Your task to perform on an android device: turn off location history Image 0: 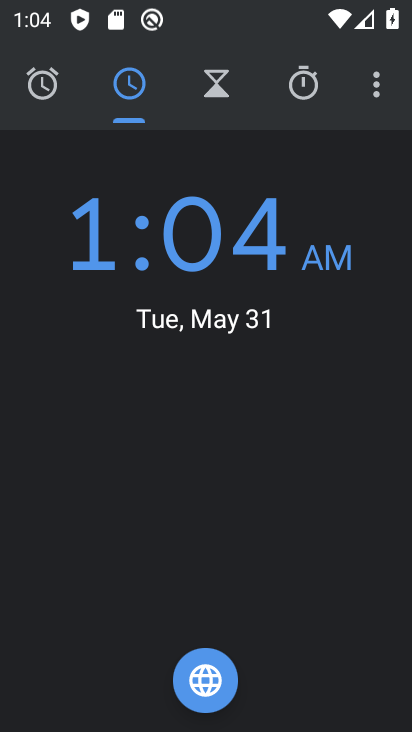
Step 0: press home button
Your task to perform on an android device: turn off location history Image 1: 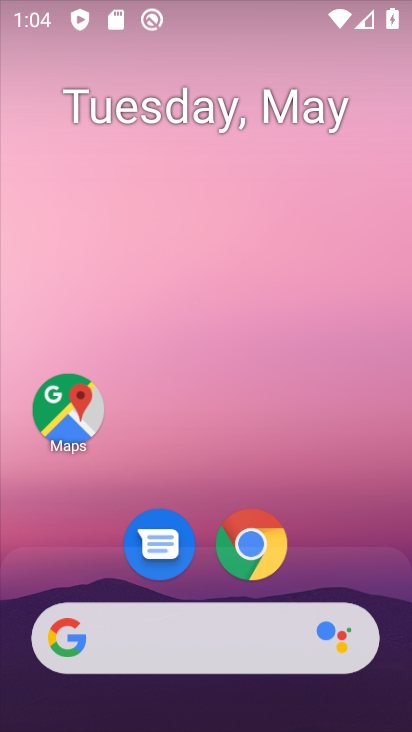
Step 1: drag from (131, 726) to (181, 10)
Your task to perform on an android device: turn off location history Image 2: 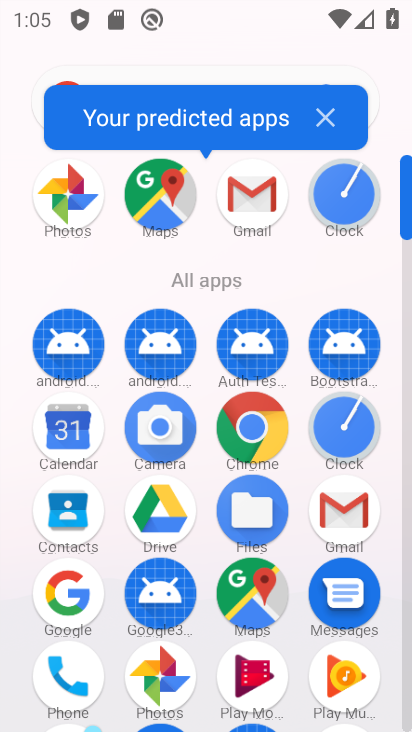
Step 2: drag from (110, 568) to (121, 194)
Your task to perform on an android device: turn off location history Image 3: 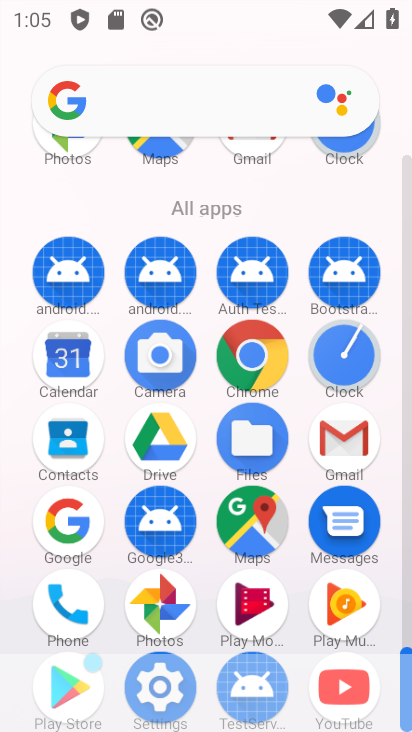
Step 3: click (157, 672)
Your task to perform on an android device: turn off location history Image 4: 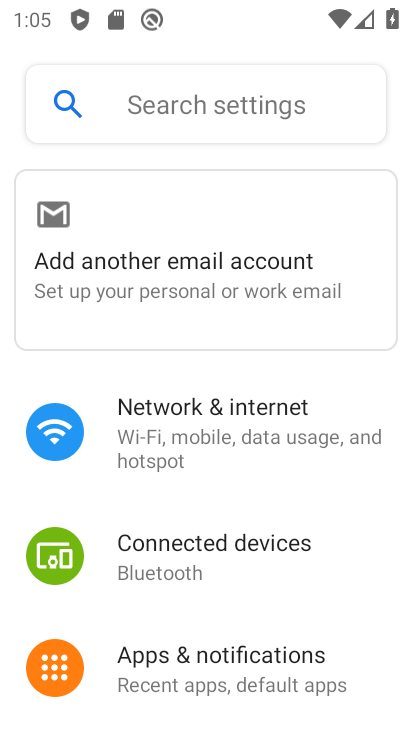
Step 4: drag from (276, 540) to (270, 222)
Your task to perform on an android device: turn off location history Image 5: 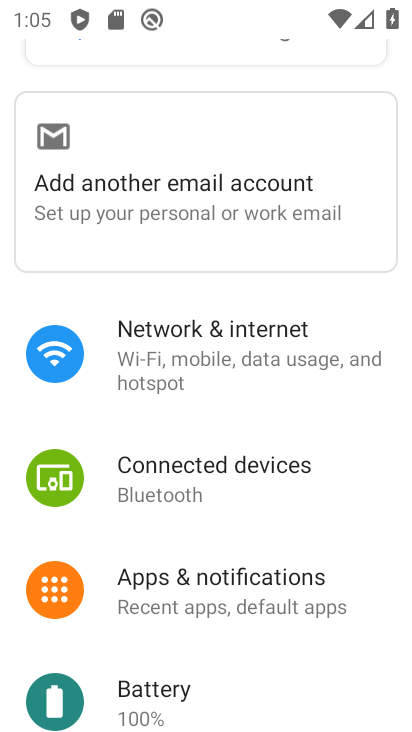
Step 5: drag from (200, 682) to (219, 330)
Your task to perform on an android device: turn off location history Image 6: 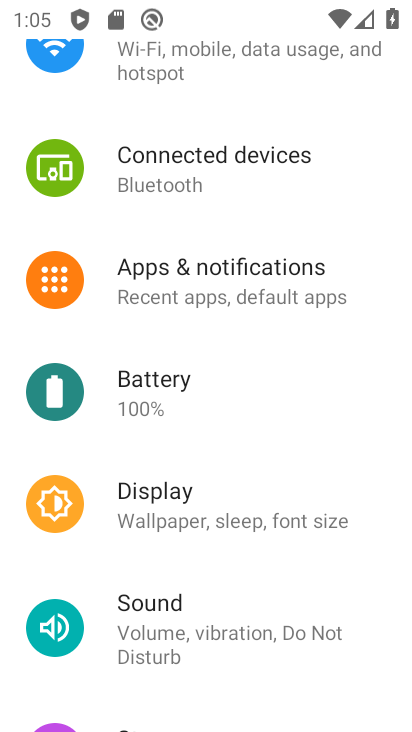
Step 6: drag from (320, 469) to (306, 228)
Your task to perform on an android device: turn off location history Image 7: 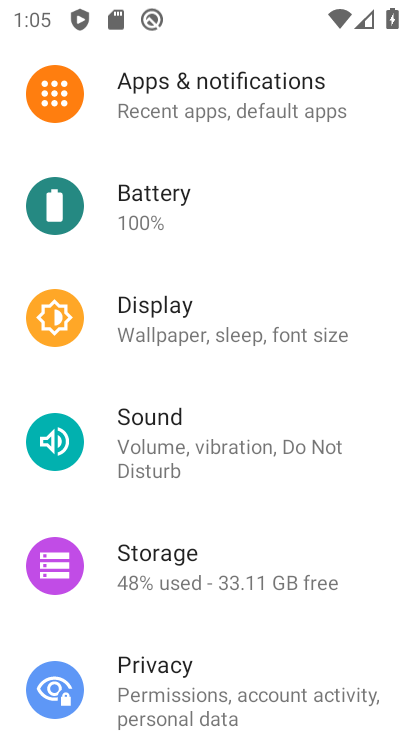
Step 7: drag from (223, 597) to (193, 186)
Your task to perform on an android device: turn off location history Image 8: 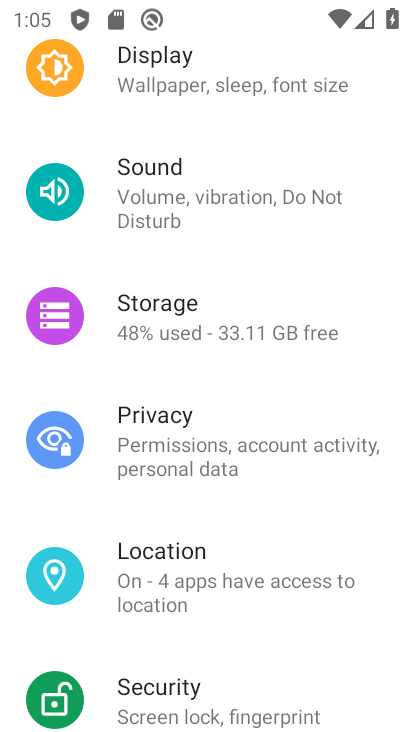
Step 8: click (166, 574)
Your task to perform on an android device: turn off location history Image 9: 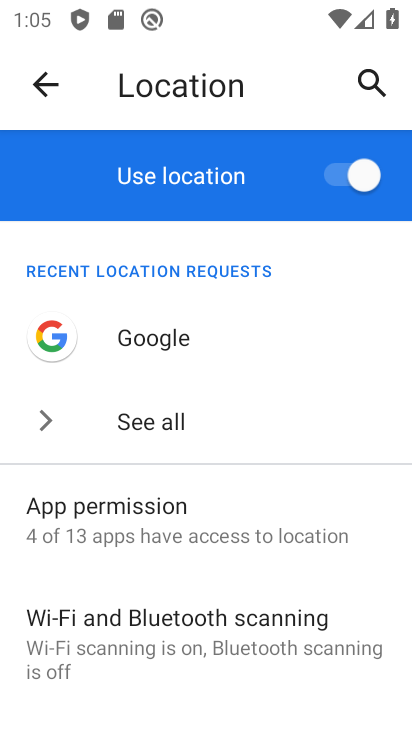
Step 9: drag from (208, 520) to (250, 215)
Your task to perform on an android device: turn off location history Image 10: 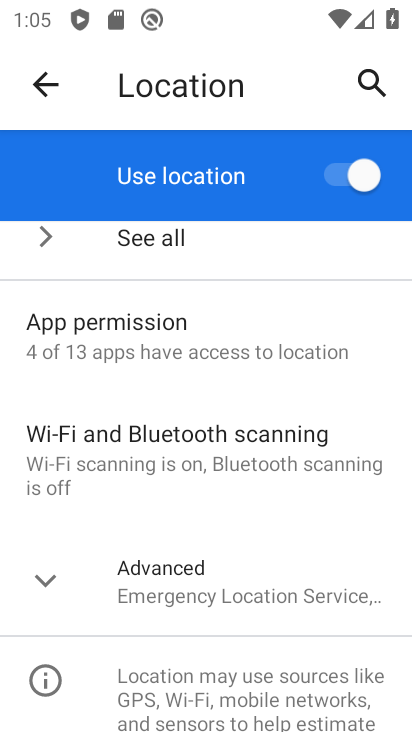
Step 10: click (169, 609)
Your task to perform on an android device: turn off location history Image 11: 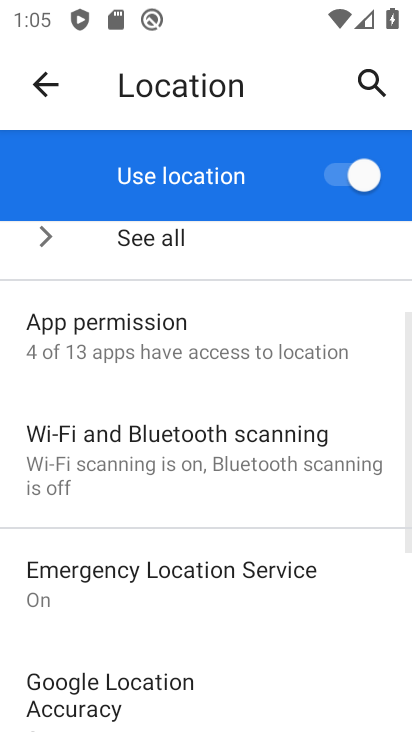
Step 11: drag from (195, 604) to (213, 224)
Your task to perform on an android device: turn off location history Image 12: 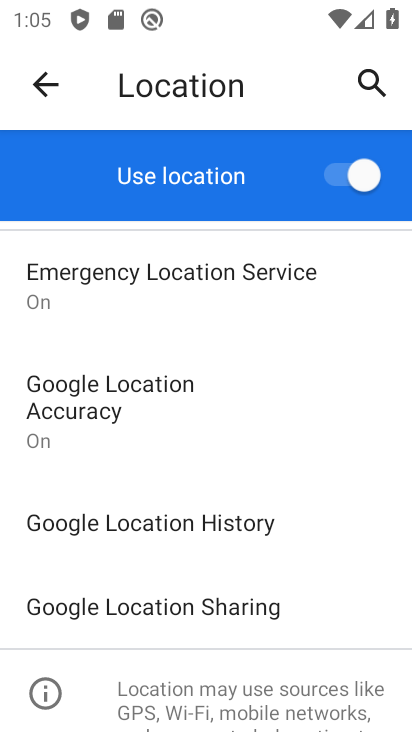
Step 12: click (203, 527)
Your task to perform on an android device: turn off location history Image 13: 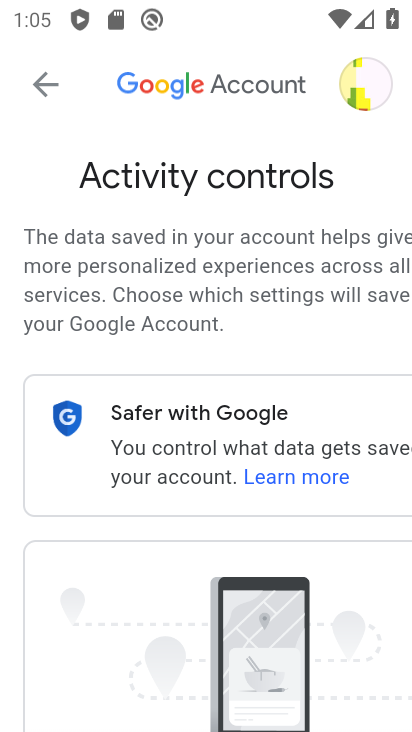
Step 13: task complete